Your task to perform on an android device: Open Chrome and go to settings Image 0: 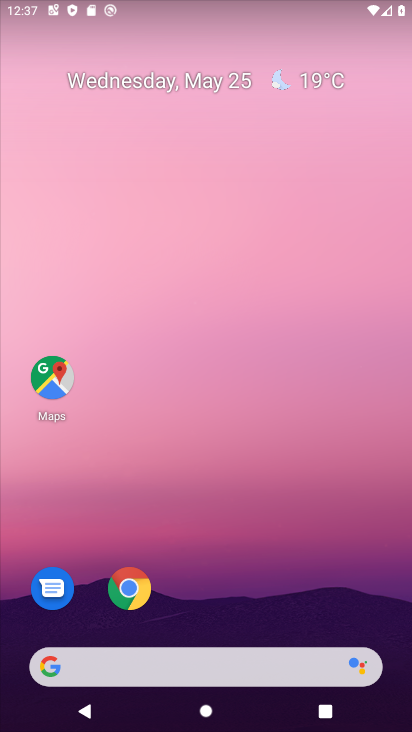
Step 0: click (125, 603)
Your task to perform on an android device: Open Chrome and go to settings Image 1: 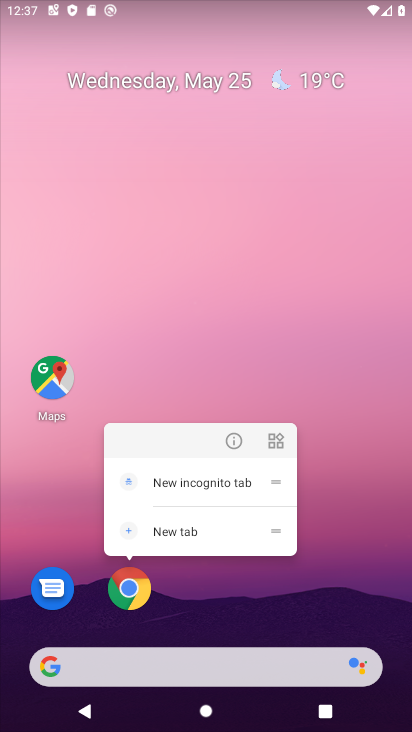
Step 1: click (125, 595)
Your task to perform on an android device: Open Chrome and go to settings Image 2: 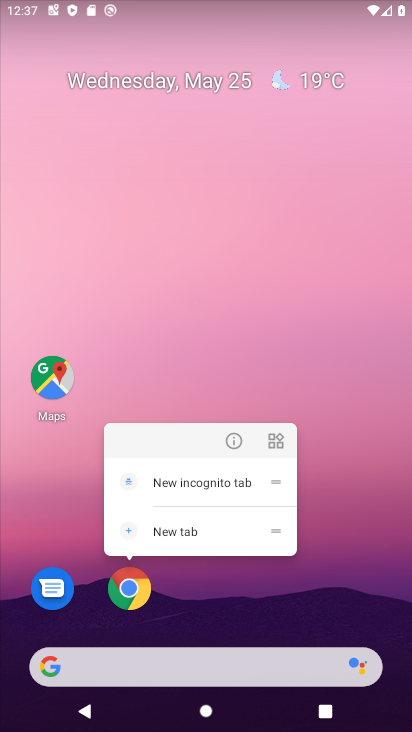
Step 2: click (146, 575)
Your task to perform on an android device: Open Chrome and go to settings Image 3: 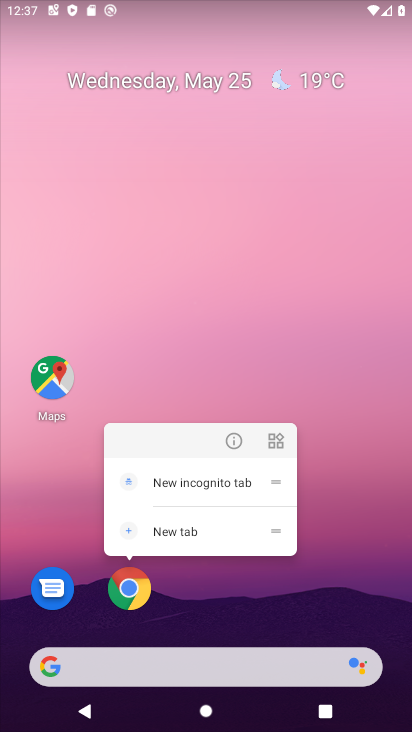
Step 3: click (124, 597)
Your task to perform on an android device: Open Chrome and go to settings Image 4: 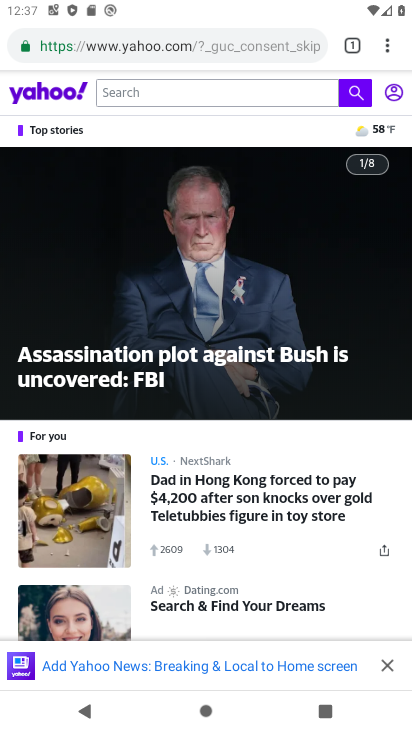
Step 4: task complete